Your task to perform on an android device: Search for a new lawnmower on home depot Image 0: 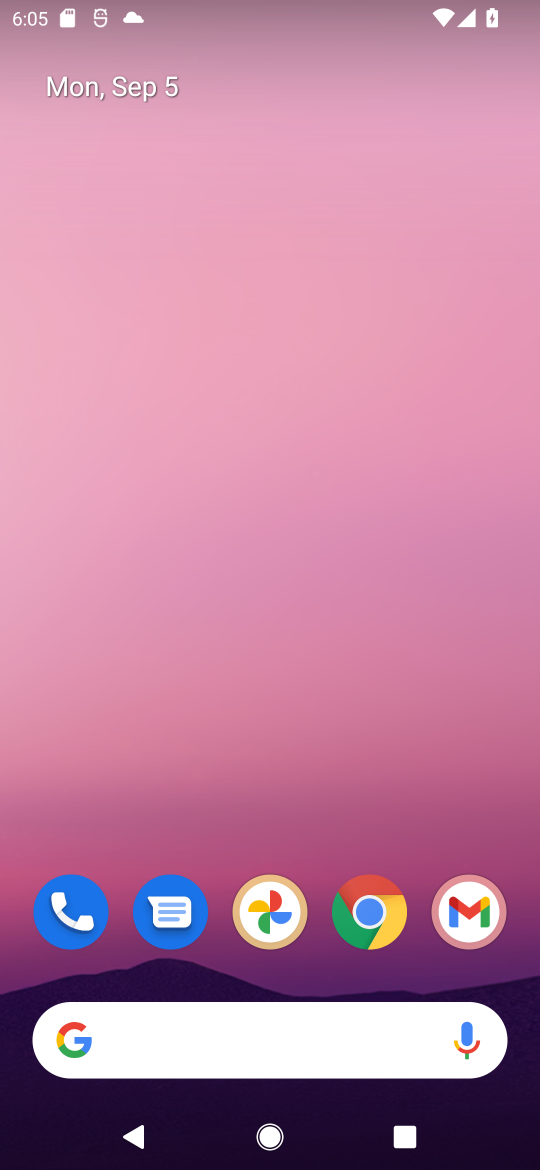
Step 0: click (384, 956)
Your task to perform on an android device: Search for a new lawnmower on home depot Image 1: 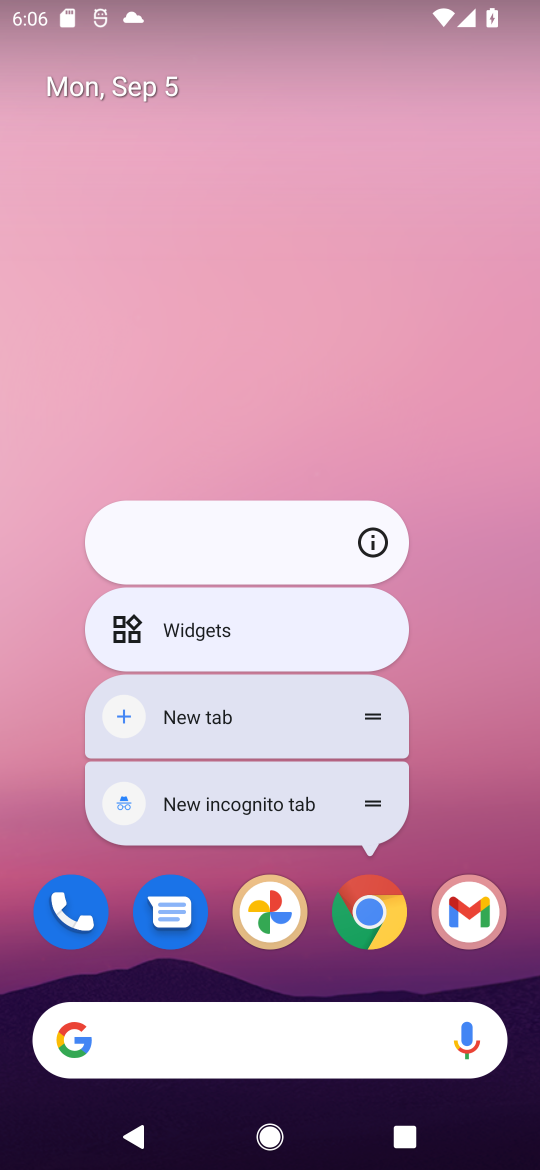
Step 1: click (368, 931)
Your task to perform on an android device: Search for a new lawnmower on home depot Image 2: 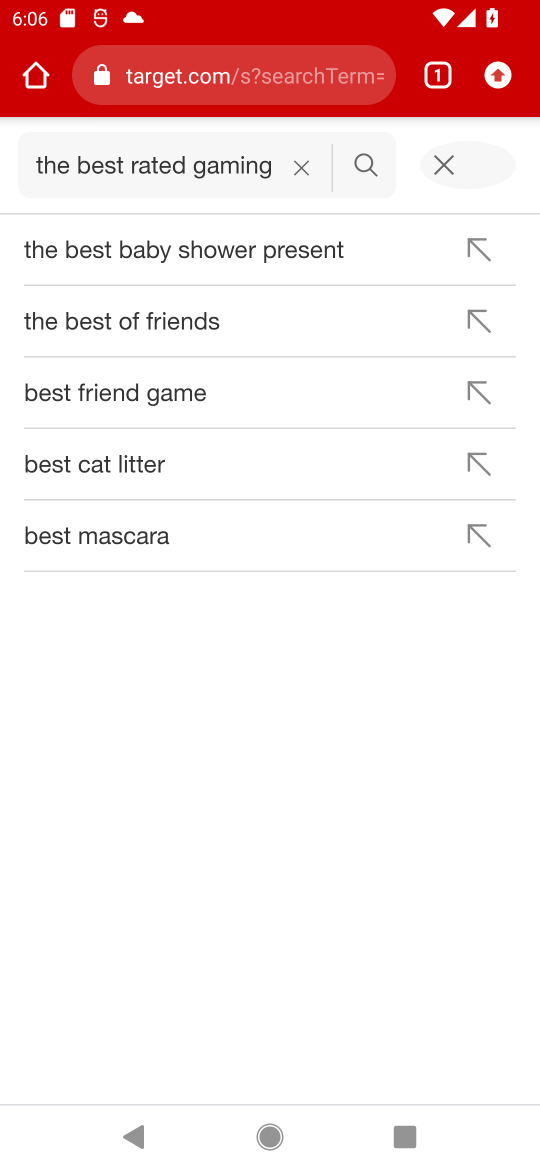
Step 2: click (435, 171)
Your task to perform on an android device: Search for a new lawnmower on home depot Image 3: 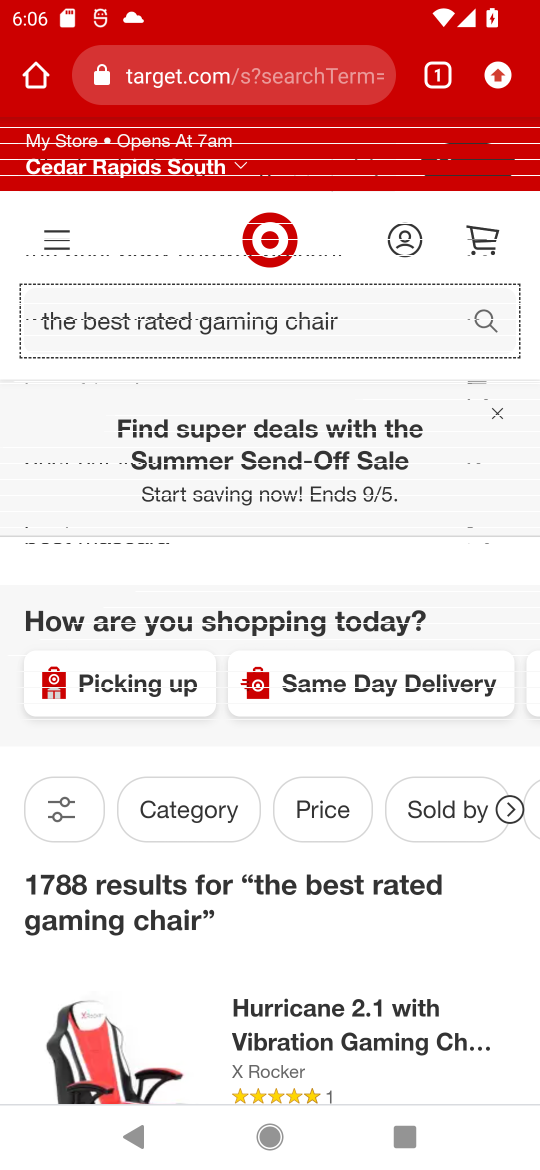
Step 3: click (298, 88)
Your task to perform on an android device: Search for a new lawnmower on home depot Image 4: 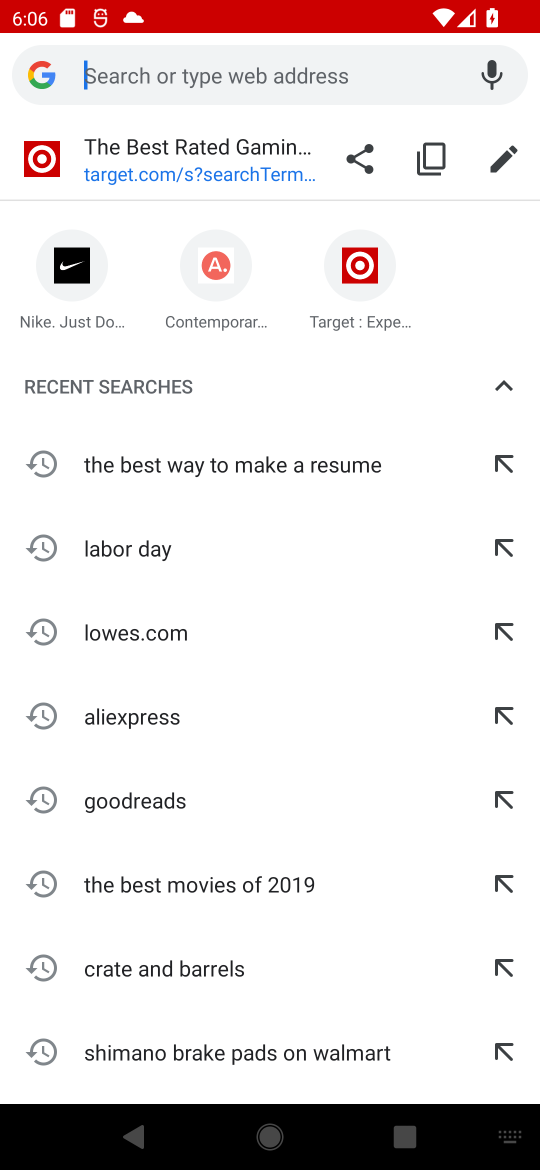
Step 4: type "the home depot"
Your task to perform on an android device: Search for a new lawnmower on home depot Image 5: 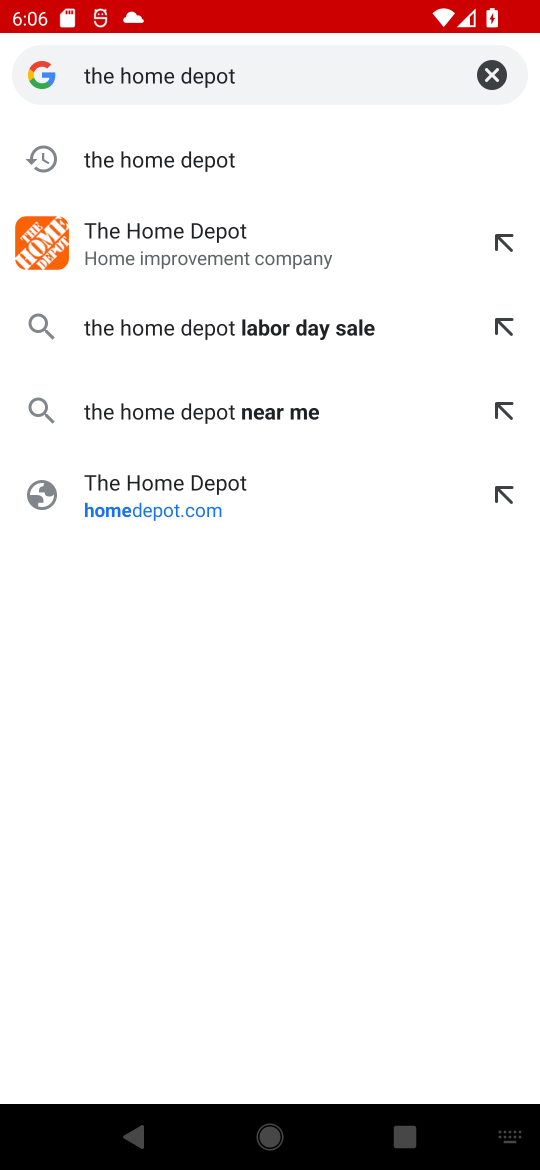
Step 5: click (213, 229)
Your task to perform on an android device: Search for a new lawnmower on home depot Image 6: 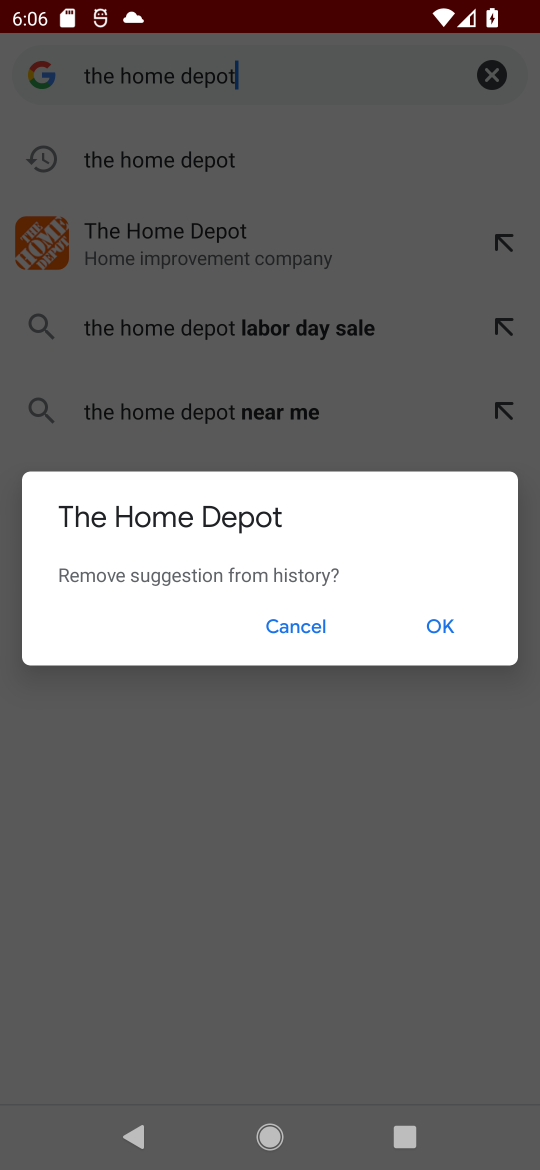
Step 6: click (300, 632)
Your task to perform on an android device: Search for a new lawnmower on home depot Image 7: 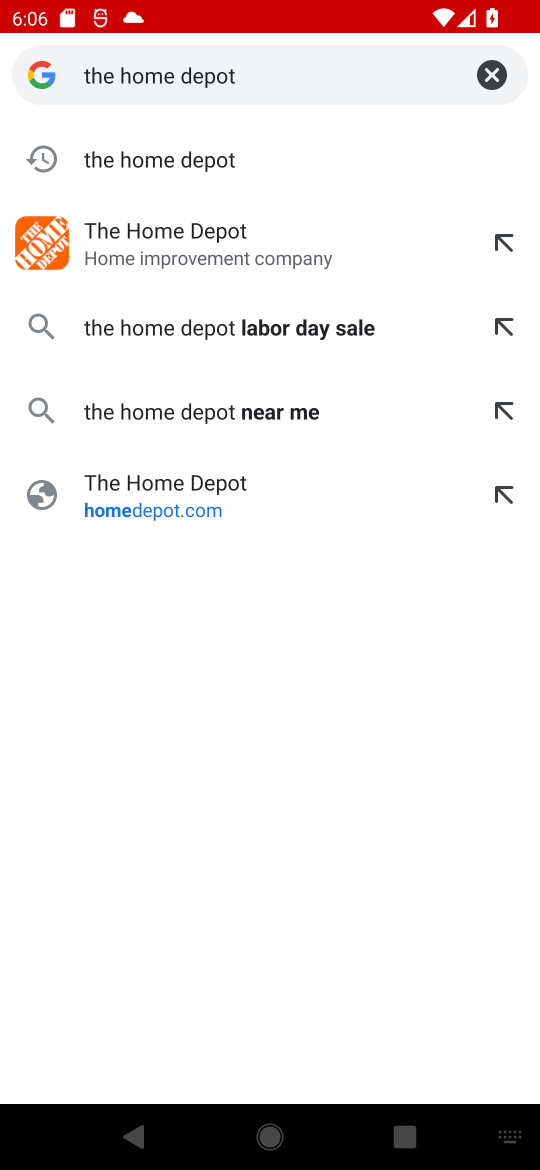
Step 7: click (511, 241)
Your task to perform on an android device: Search for a new lawnmower on home depot Image 8: 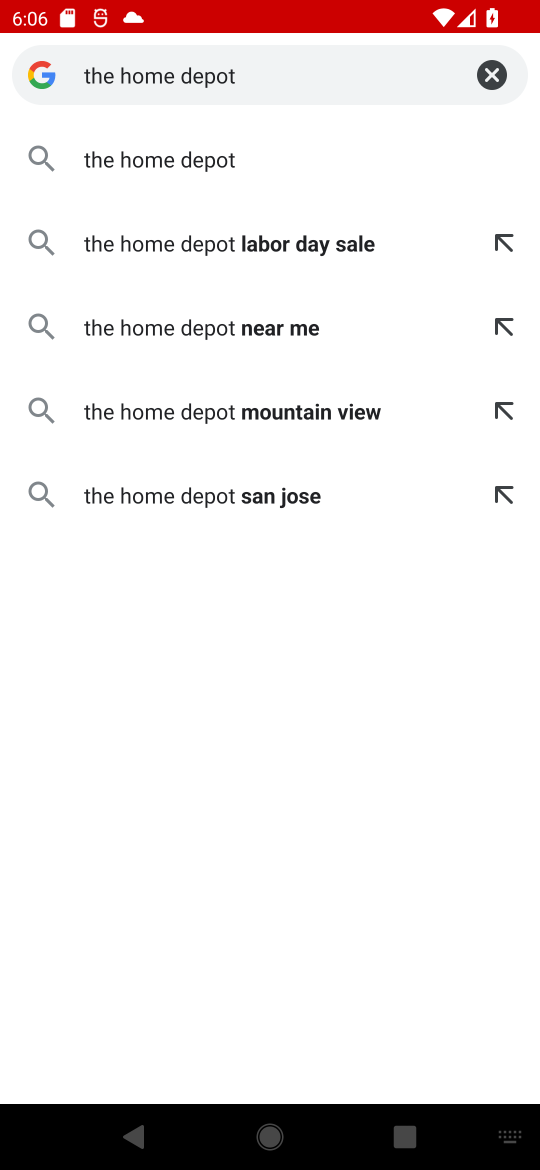
Step 8: click (253, 149)
Your task to perform on an android device: Search for a new lawnmower on home depot Image 9: 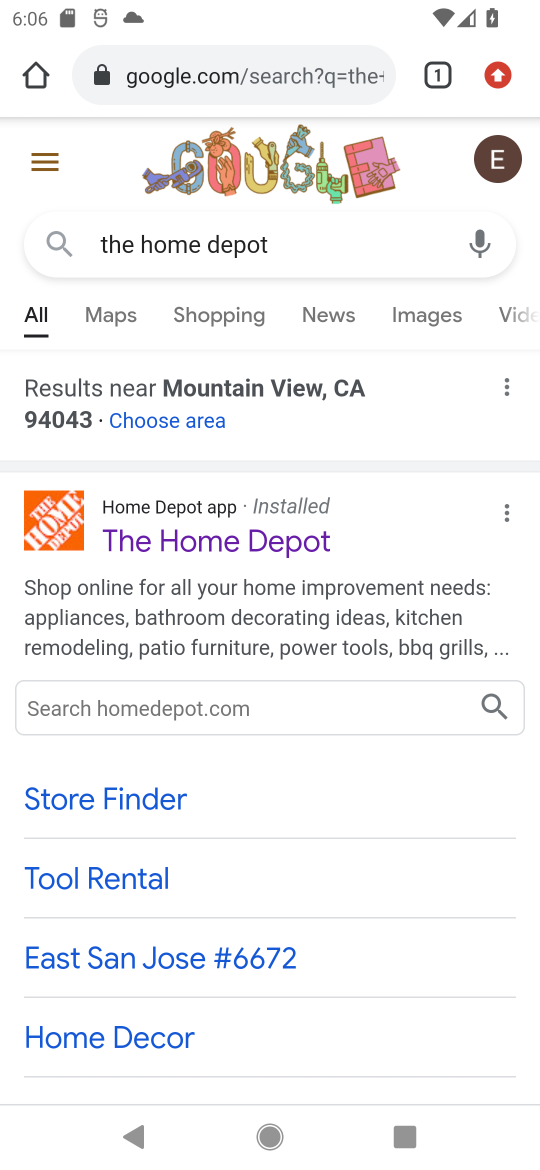
Step 9: click (189, 532)
Your task to perform on an android device: Search for a new lawnmower on home depot Image 10: 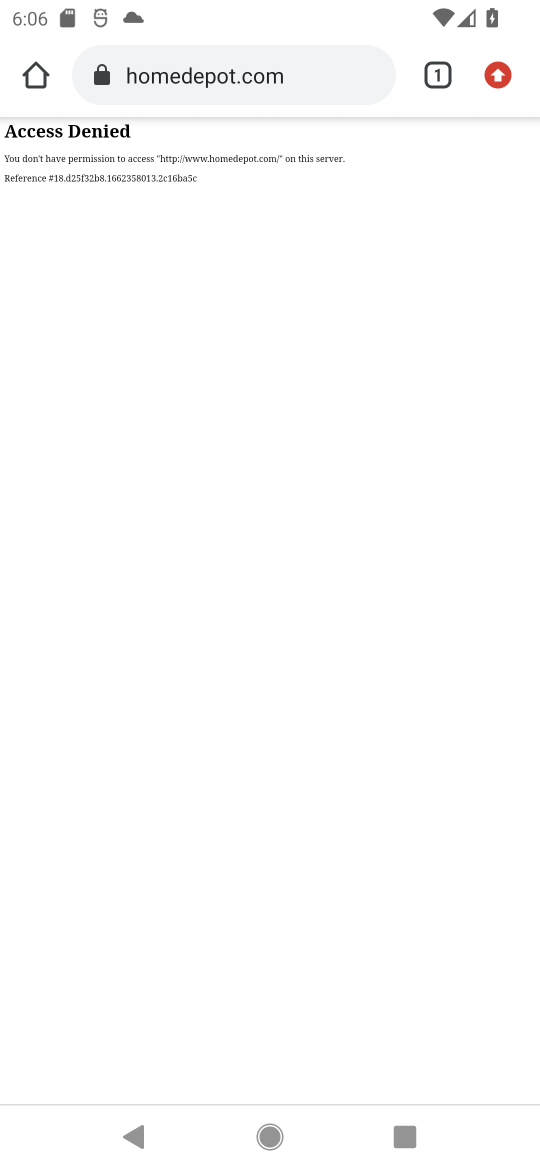
Step 10: click (189, 532)
Your task to perform on an android device: Search for a new lawnmower on home depot Image 11: 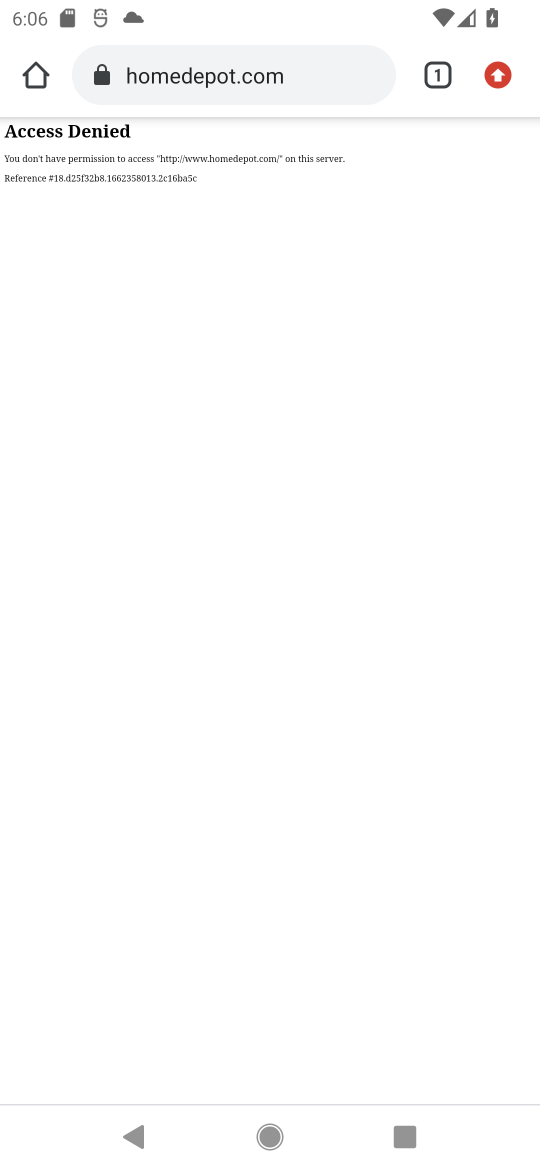
Step 11: task complete